Your task to perform on an android device: Search for sushi restaurants on Maps Image 0: 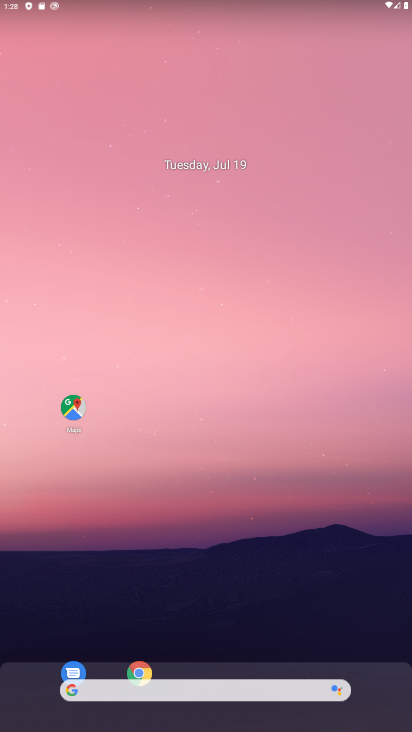
Step 0: drag from (235, 645) to (256, 141)
Your task to perform on an android device: Search for sushi restaurants on Maps Image 1: 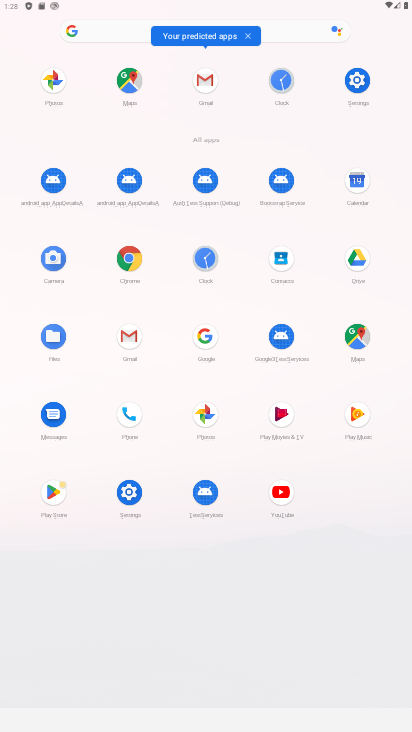
Step 1: click (351, 336)
Your task to perform on an android device: Search for sushi restaurants on Maps Image 2: 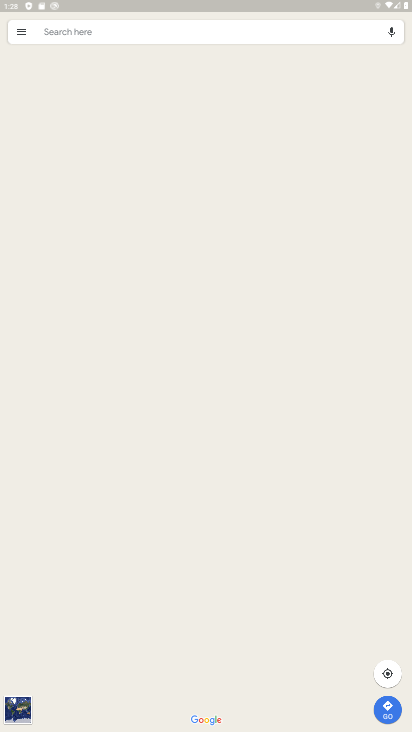
Step 2: click (182, 27)
Your task to perform on an android device: Search for sushi restaurants on Maps Image 3: 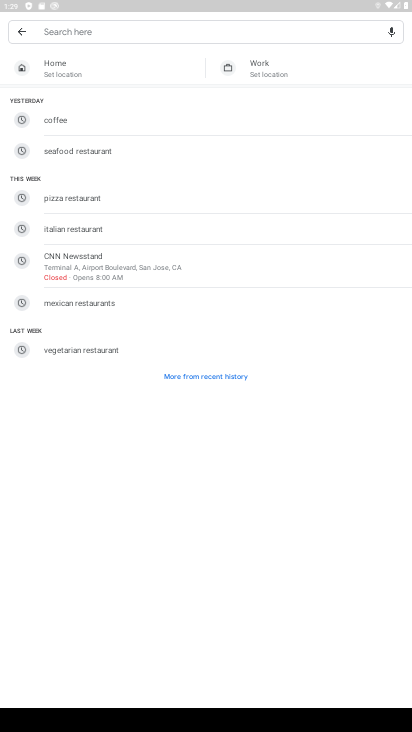
Step 3: type "sushi restaurants"
Your task to perform on an android device: Search for sushi restaurants on Maps Image 4: 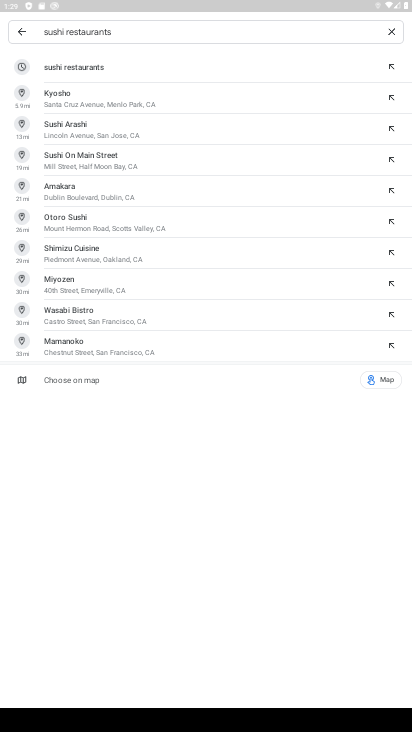
Step 4: click (129, 60)
Your task to perform on an android device: Search for sushi restaurants on Maps Image 5: 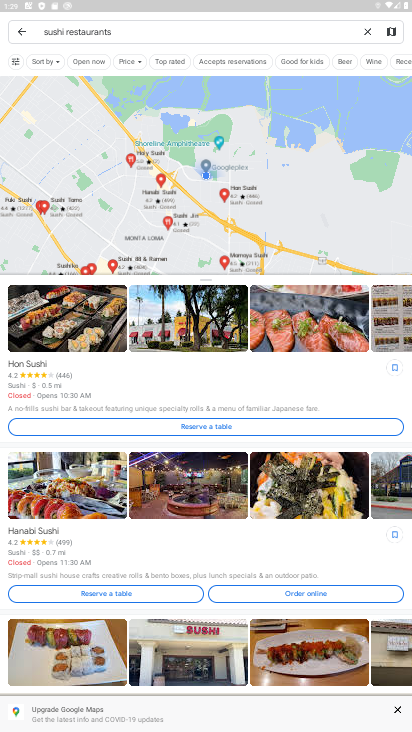
Step 5: task complete